Your task to perform on an android device: turn on showing notifications on the lock screen Image 0: 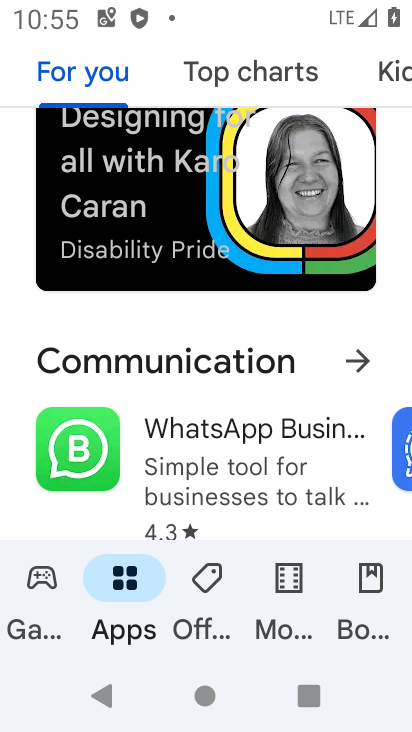
Step 0: press home button
Your task to perform on an android device: turn on showing notifications on the lock screen Image 1: 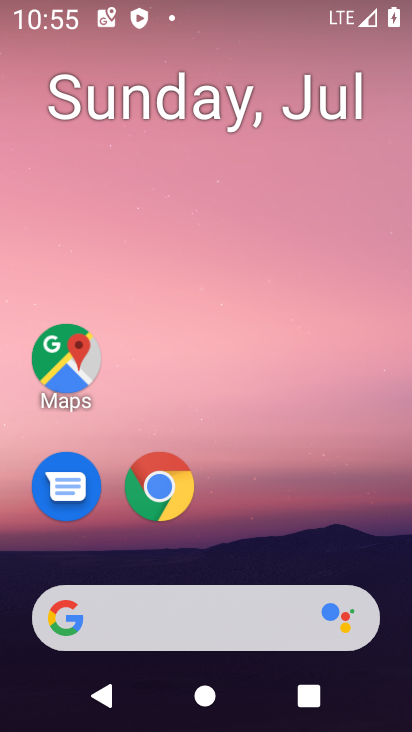
Step 1: drag from (367, 499) to (360, 45)
Your task to perform on an android device: turn on showing notifications on the lock screen Image 2: 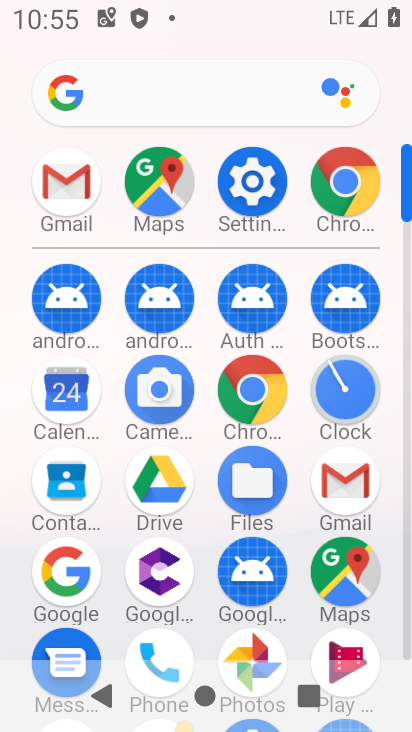
Step 2: click (258, 189)
Your task to perform on an android device: turn on showing notifications on the lock screen Image 3: 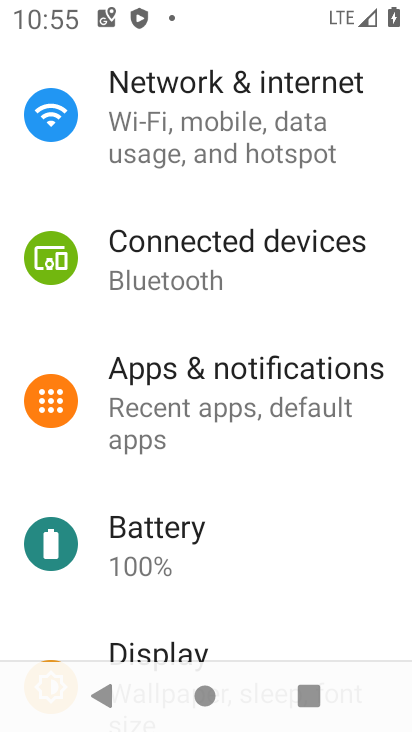
Step 3: drag from (378, 197) to (357, 361)
Your task to perform on an android device: turn on showing notifications on the lock screen Image 4: 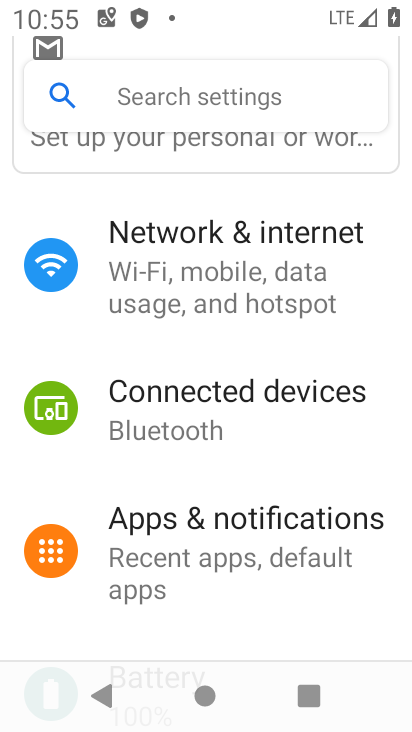
Step 4: drag from (344, 484) to (353, 347)
Your task to perform on an android device: turn on showing notifications on the lock screen Image 5: 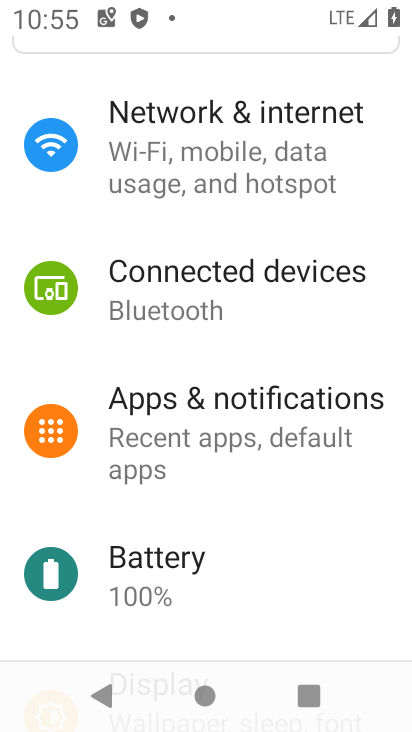
Step 5: drag from (333, 527) to (335, 369)
Your task to perform on an android device: turn on showing notifications on the lock screen Image 6: 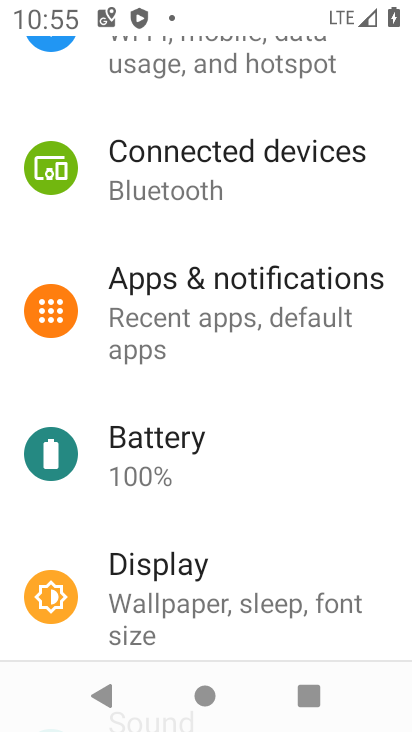
Step 6: drag from (337, 499) to (340, 388)
Your task to perform on an android device: turn on showing notifications on the lock screen Image 7: 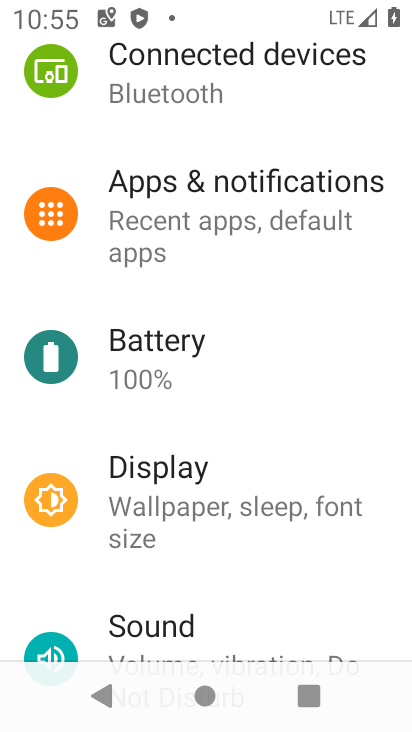
Step 7: drag from (303, 507) to (301, 333)
Your task to perform on an android device: turn on showing notifications on the lock screen Image 8: 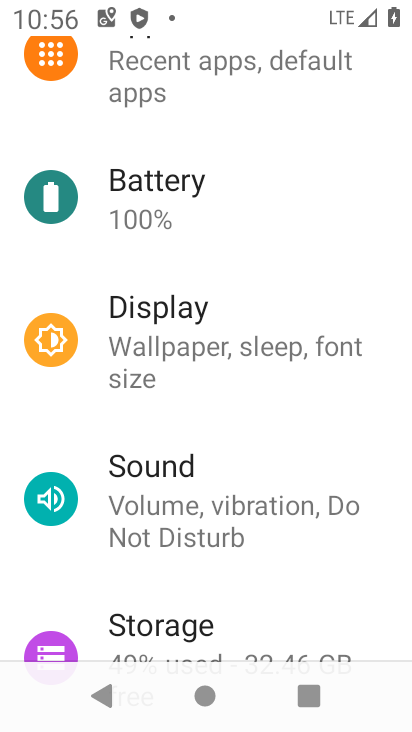
Step 8: drag from (285, 553) to (301, 339)
Your task to perform on an android device: turn on showing notifications on the lock screen Image 9: 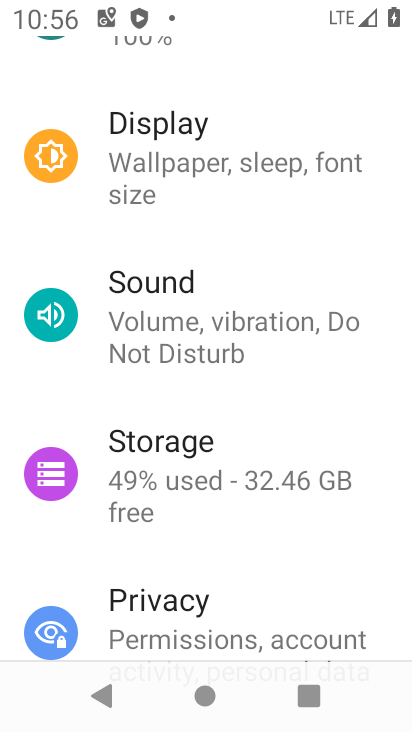
Step 9: drag from (335, 238) to (335, 414)
Your task to perform on an android device: turn on showing notifications on the lock screen Image 10: 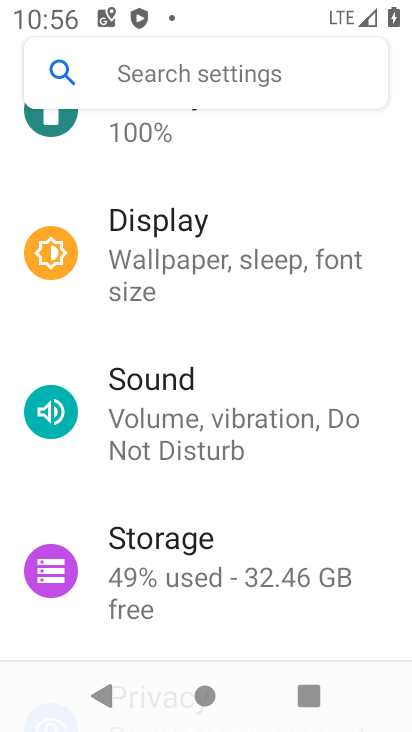
Step 10: drag from (343, 284) to (326, 536)
Your task to perform on an android device: turn on showing notifications on the lock screen Image 11: 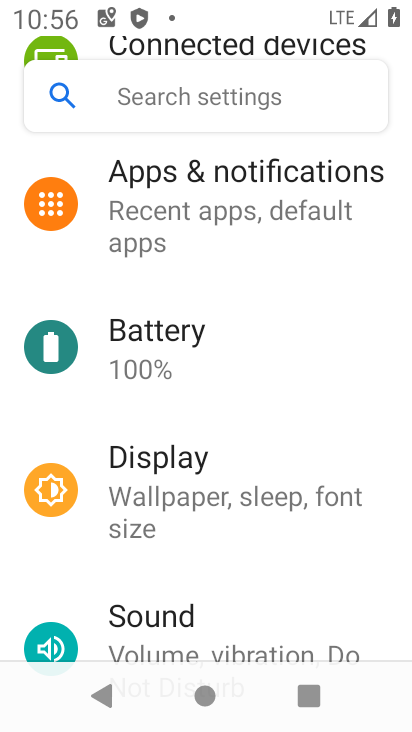
Step 11: drag from (323, 287) to (322, 449)
Your task to perform on an android device: turn on showing notifications on the lock screen Image 12: 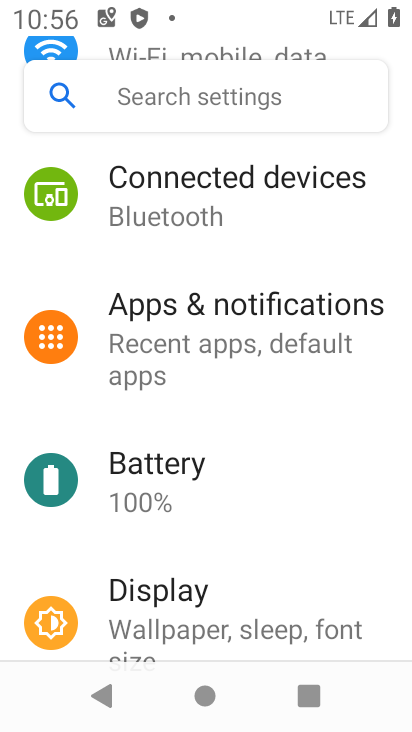
Step 12: click (317, 345)
Your task to perform on an android device: turn on showing notifications on the lock screen Image 13: 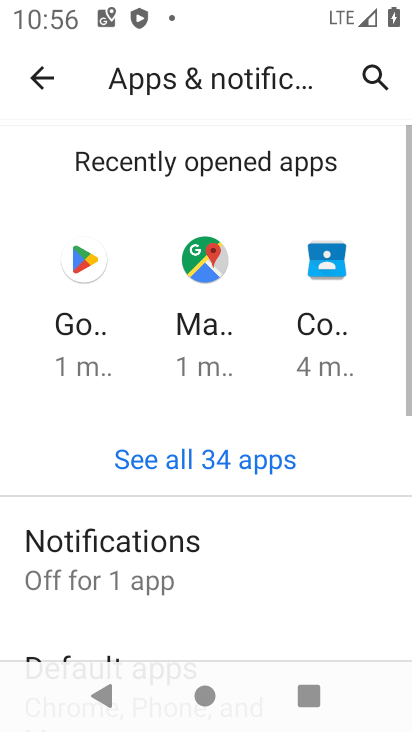
Step 13: drag from (291, 523) to (296, 328)
Your task to perform on an android device: turn on showing notifications on the lock screen Image 14: 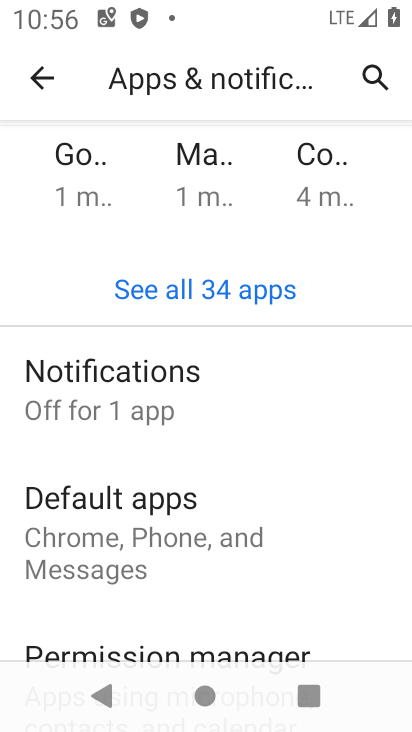
Step 14: click (176, 397)
Your task to perform on an android device: turn on showing notifications on the lock screen Image 15: 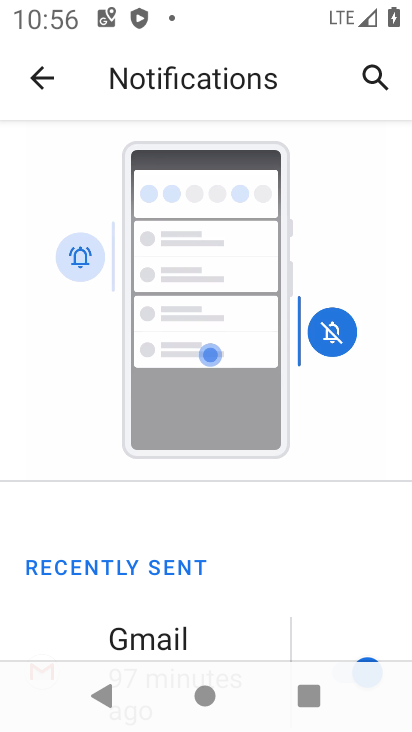
Step 15: drag from (277, 541) to (282, 305)
Your task to perform on an android device: turn on showing notifications on the lock screen Image 16: 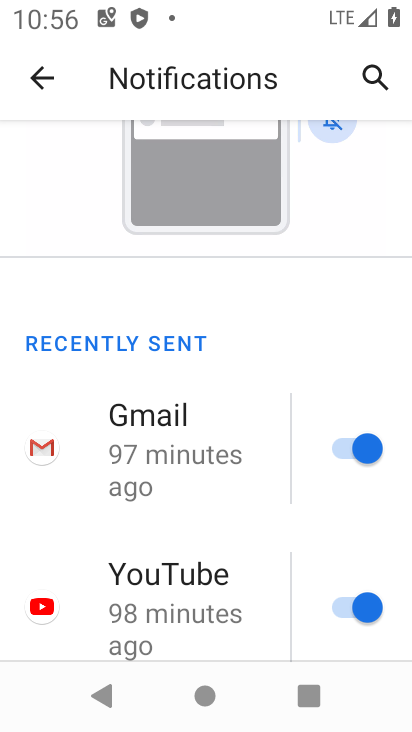
Step 16: drag from (265, 518) to (254, 364)
Your task to perform on an android device: turn on showing notifications on the lock screen Image 17: 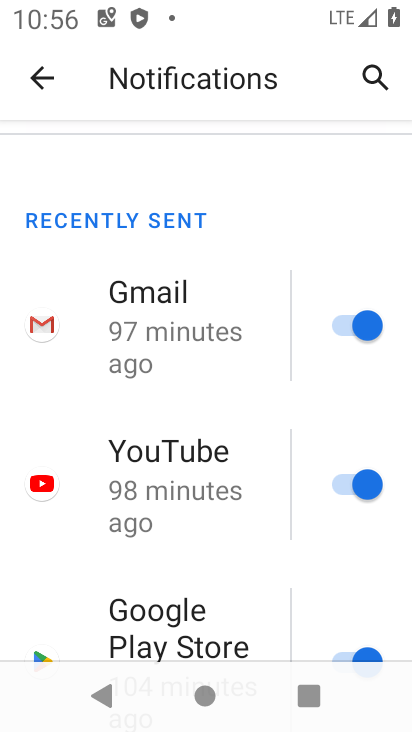
Step 17: drag from (236, 581) to (240, 443)
Your task to perform on an android device: turn on showing notifications on the lock screen Image 18: 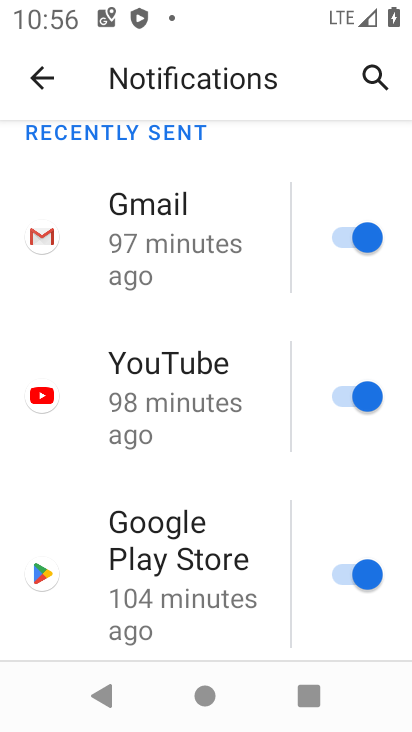
Step 18: drag from (239, 635) to (235, 465)
Your task to perform on an android device: turn on showing notifications on the lock screen Image 19: 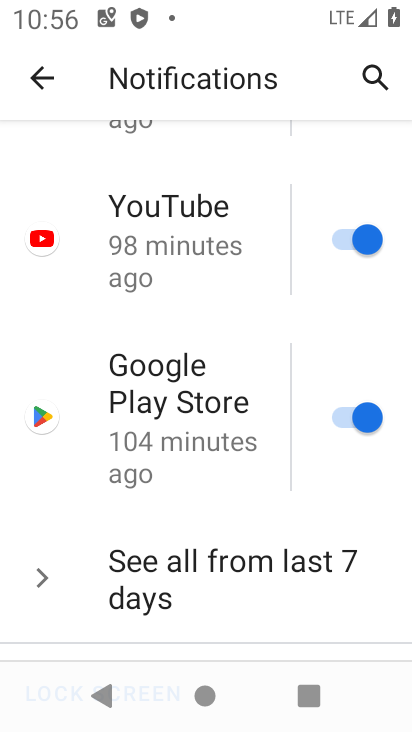
Step 19: drag from (213, 609) to (211, 488)
Your task to perform on an android device: turn on showing notifications on the lock screen Image 20: 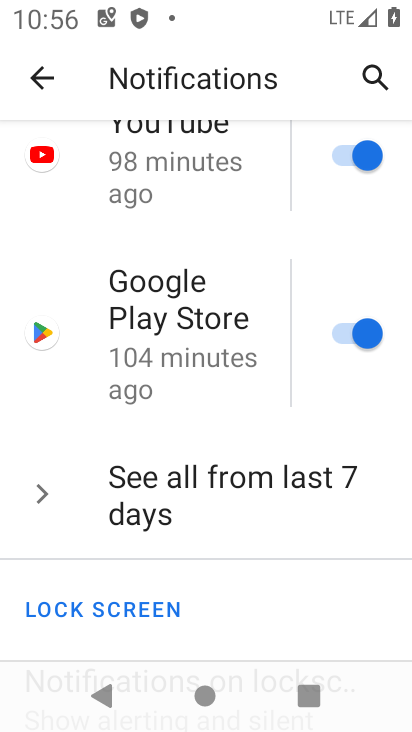
Step 20: drag from (241, 589) to (240, 445)
Your task to perform on an android device: turn on showing notifications on the lock screen Image 21: 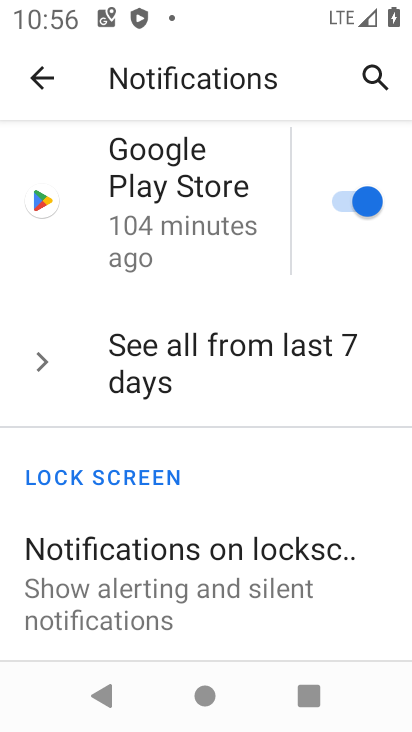
Step 21: drag from (231, 597) to (228, 390)
Your task to perform on an android device: turn on showing notifications on the lock screen Image 22: 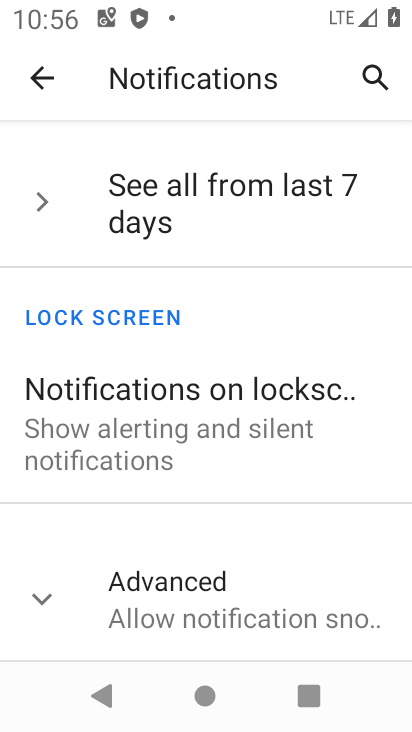
Step 22: click (268, 401)
Your task to perform on an android device: turn on showing notifications on the lock screen Image 23: 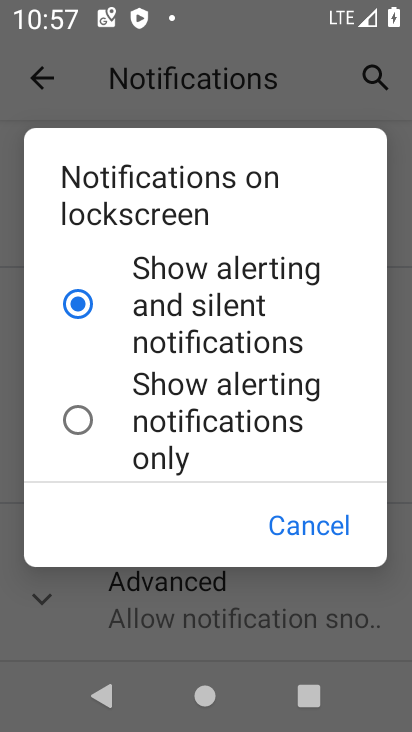
Step 23: task complete